Your task to perform on an android device: Open the web browser Image 0: 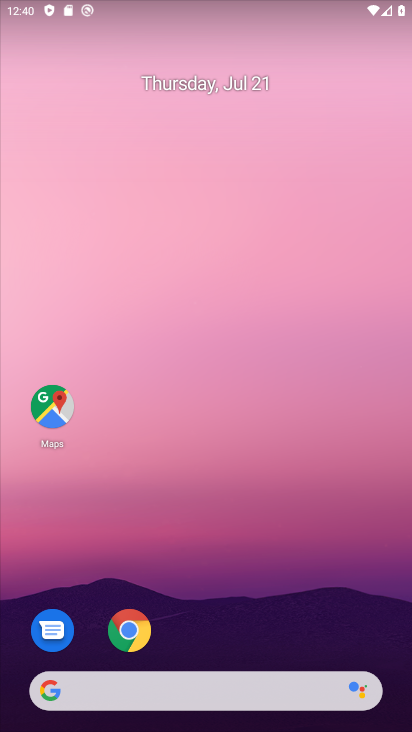
Step 0: click (142, 682)
Your task to perform on an android device: Open the web browser Image 1: 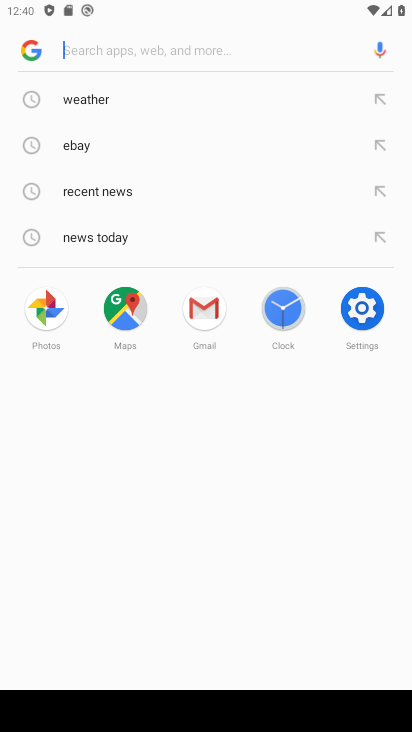
Step 1: task complete